Your task to perform on an android device: turn pop-ups off in chrome Image 0: 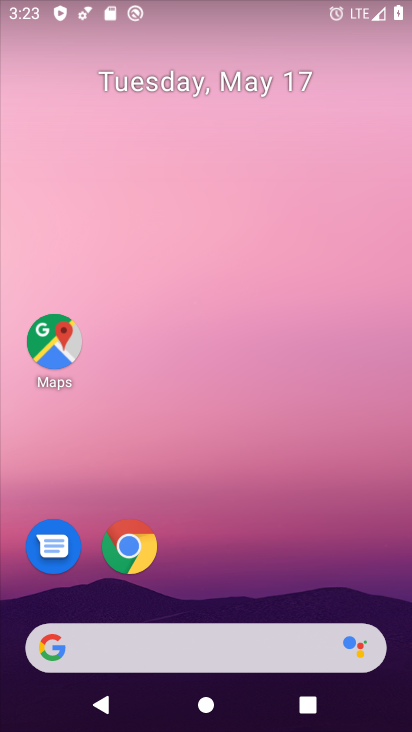
Step 0: press home button
Your task to perform on an android device: turn pop-ups off in chrome Image 1: 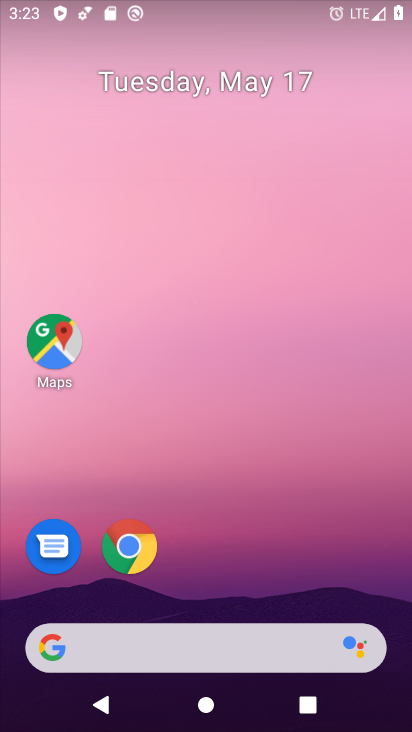
Step 1: drag from (345, 528) to (305, 726)
Your task to perform on an android device: turn pop-ups off in chrome Image 2: 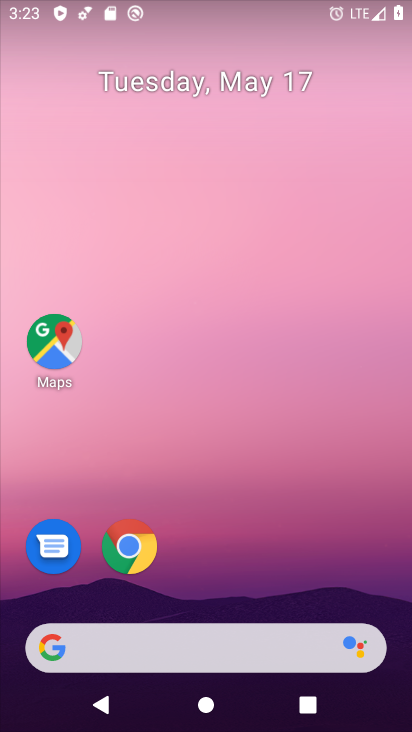
Step 2: click (124, 567)
Your task to perform on an android device: turn pop-ups off in chrome Image 3: 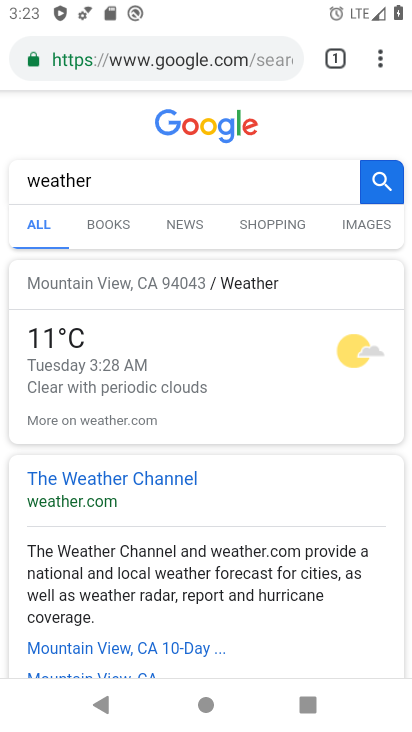
Step 3: drag from (385, 53) to (219, 557)
Your task to perform on an android device: turn pop-ups off in chrome Image 4: 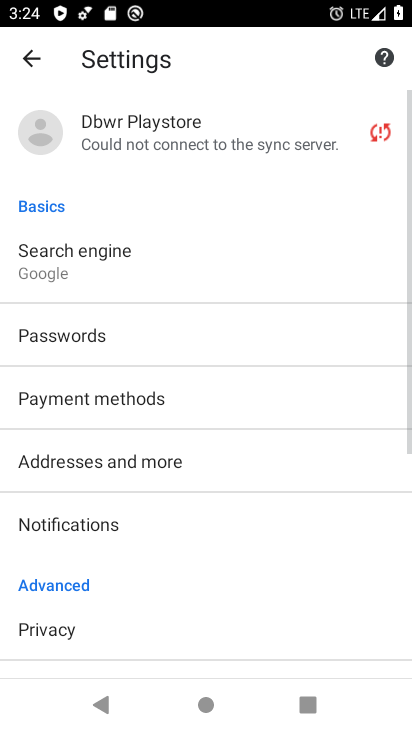
Step 4: drag from (131, 576) to (199, 196)
Your task to perform on an android device: turn pop-ups off in chrome Image 5: 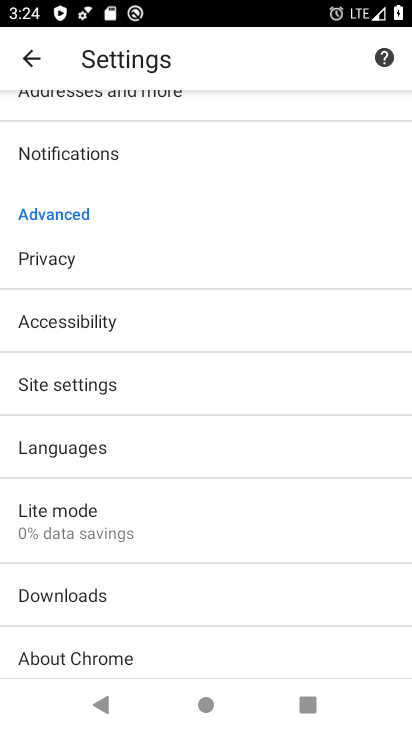
Step 5: click (135, 382)
Your task to perform on an android device: turn pop-ups off in chrome Image 6: 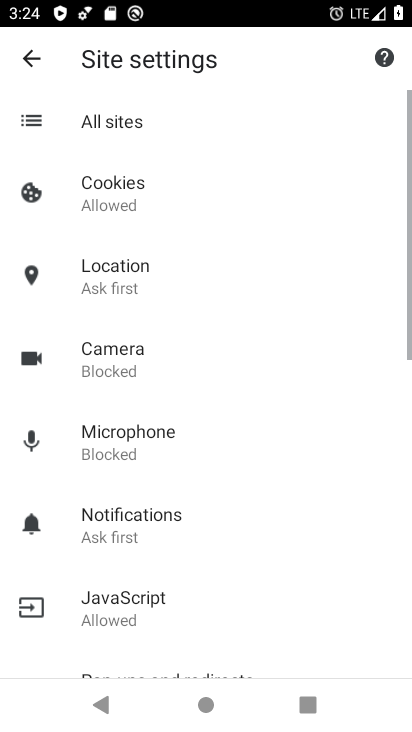
Step 6: drag from (134, 546) to (227, 260)
Your task to perform on an android device: turn pop-ups off in chrome Image 7: 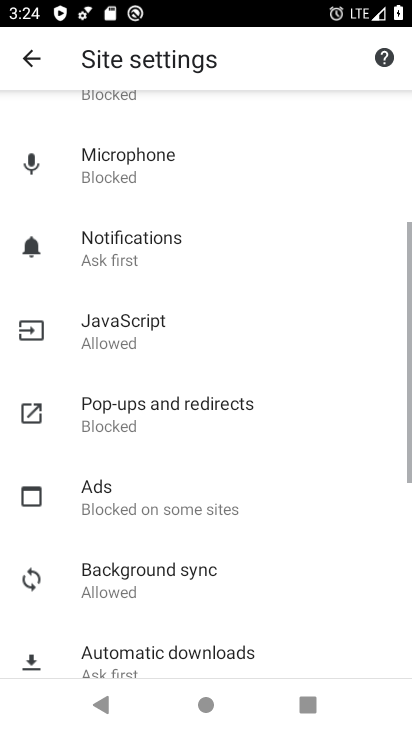
Step 7: click (191, 406)
Your task to perform on an android device: turn pop-ups off in chrome Image 8: 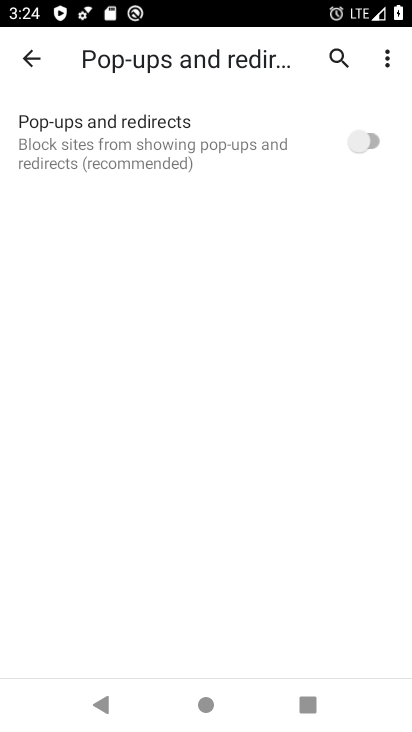
Step 8: task complete